Your task to perform on an android device: toggle notification dots Image 0: 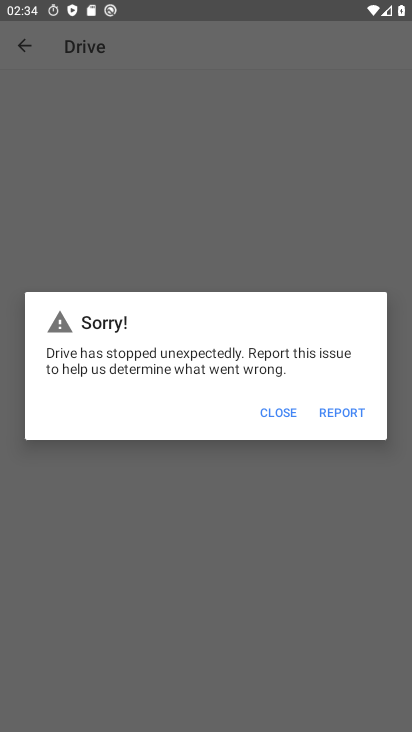
Step 0: press home button
Your task to perform on an android device: toggle notification dots Image 1: 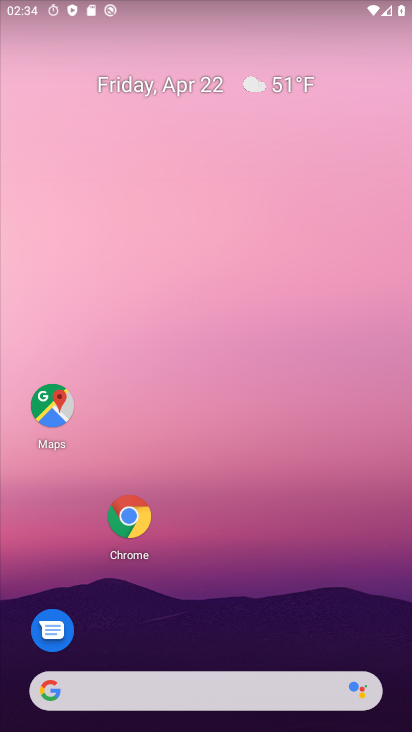
Step 1: drag from (393, 634) to (386, 289)
Your task to perform on an android device: toggle notification dots Image 2: 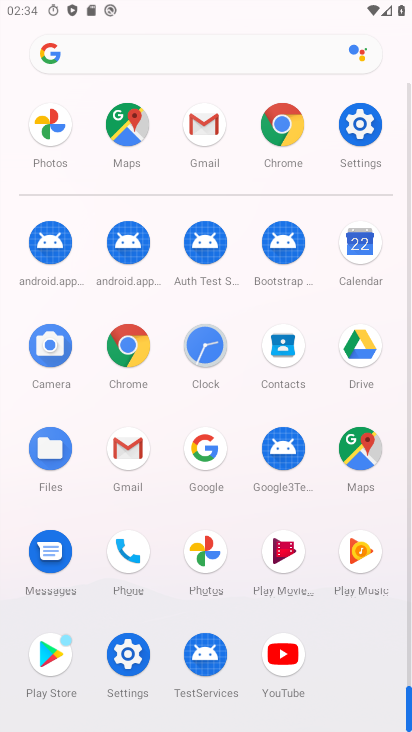
Step 2: click (346, 121)
Your task to perform on an android device: toggle notification dots Image 3: 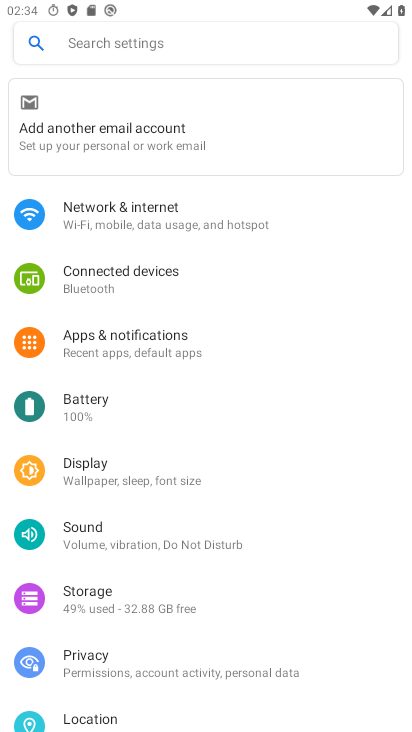
Step 3: click (107, 337)
Your task to perform on an android device: toggle notification dots Image 4: 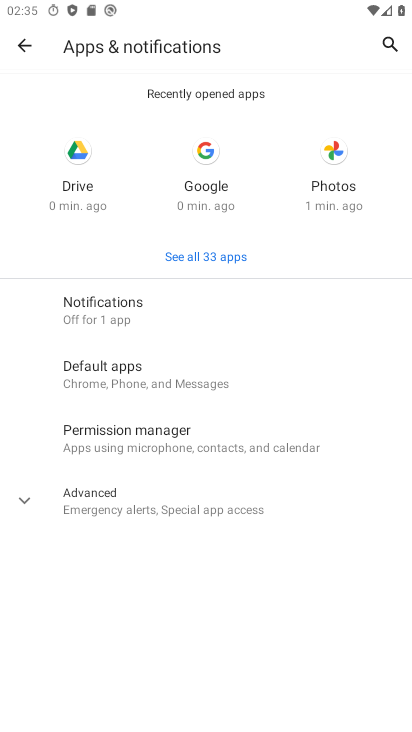
Step 4: click (94, 309)
Your task to perform on an android device: toggle notification dots Image 5: 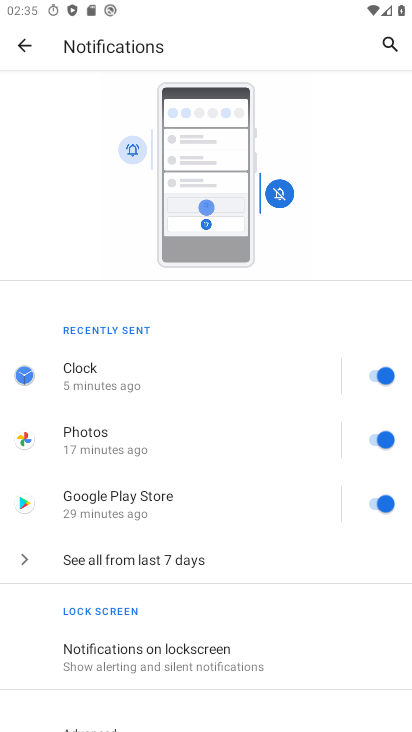
Step 5: click (298, 329)
Your task to perform on an android device: toggle notification dots Image 6: 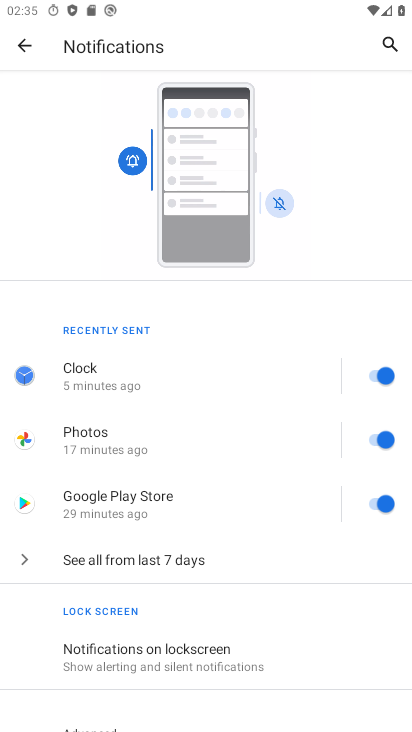
Step 6: drag from (301, 649) to (306, 437)
Your task to perform on an android device: toggle notification dots Image 7: 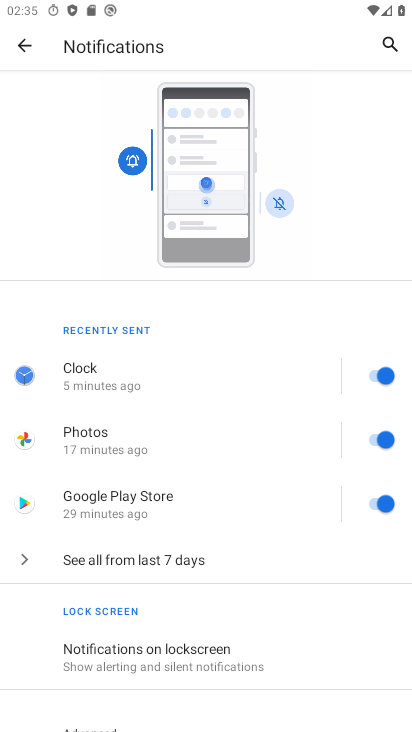
Step 7: drag from (317, 597) to (293, 315)
Your task to perform on an android device: toggle notification dots Image 8: 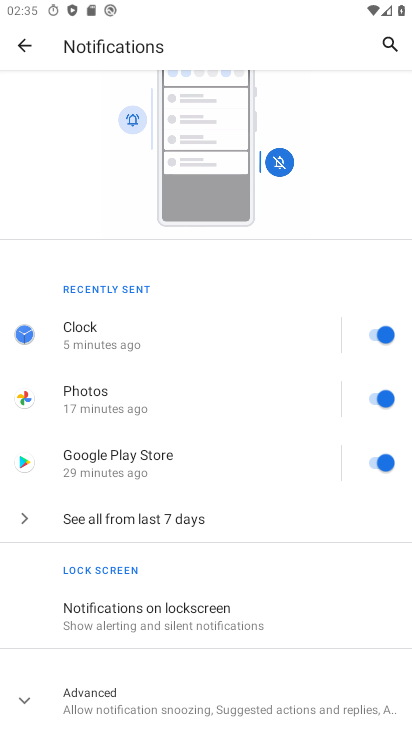
Step 8: click (88, 682)
Your task to perform on an android device: toggle notification dots Image 9: 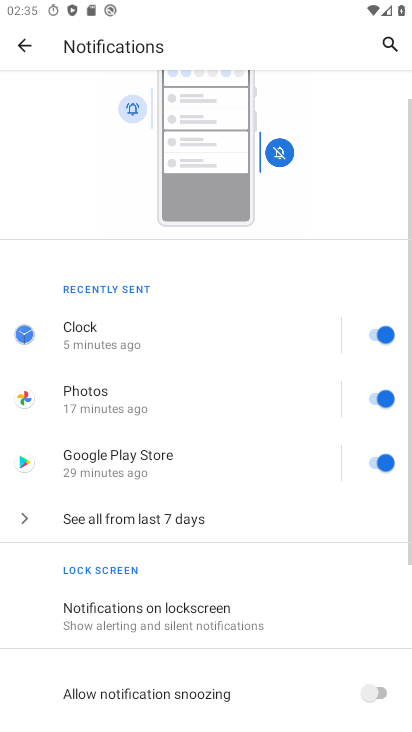
Step 9: drag from (288, 688) to (278, 286)
Your task to perform on an android device: toggle notification dots Image 10: 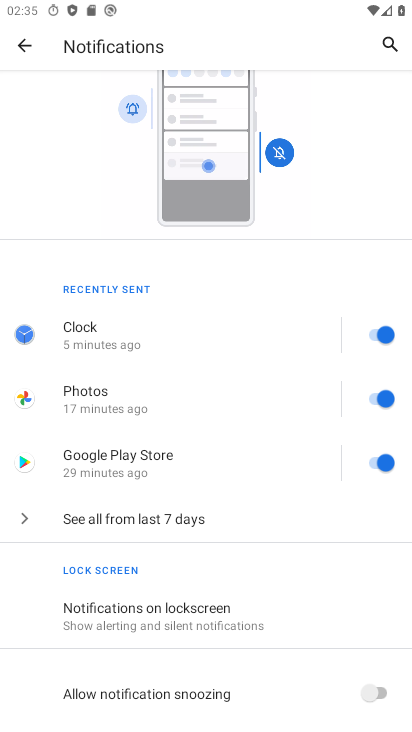
Step 10: drag from (287, 715) to (282, 359)
Your task to perform on an android device: toggle notification dots Image 11: 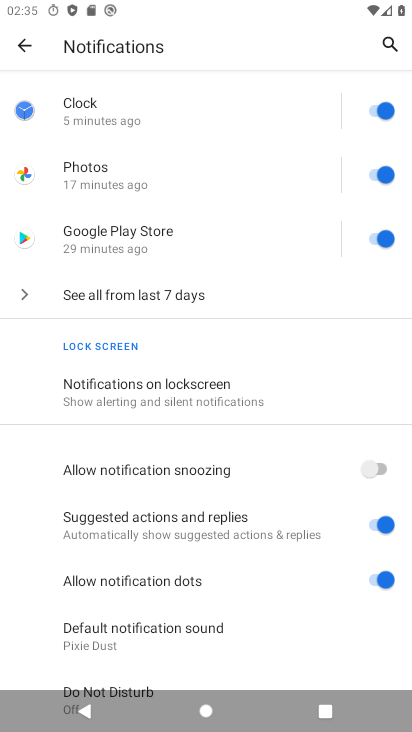
Step 11: drag from (288, 472) to (282, 375)
Your task to perform on an android device: toggle notification dots Image 12: 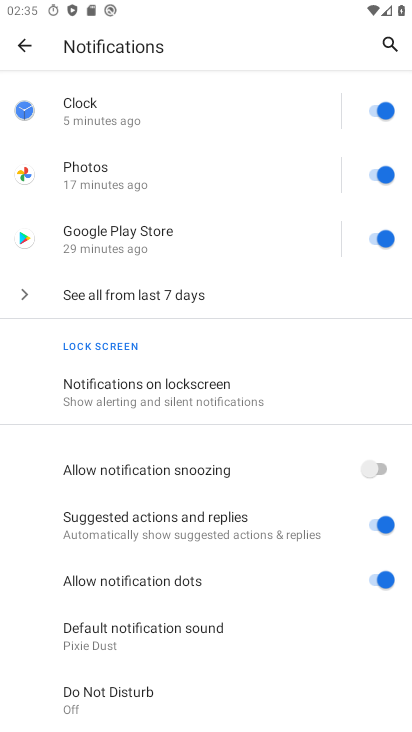
Step 12: click (368, 582)
Your task to perform on an android device: toggle notification dots Image 13: 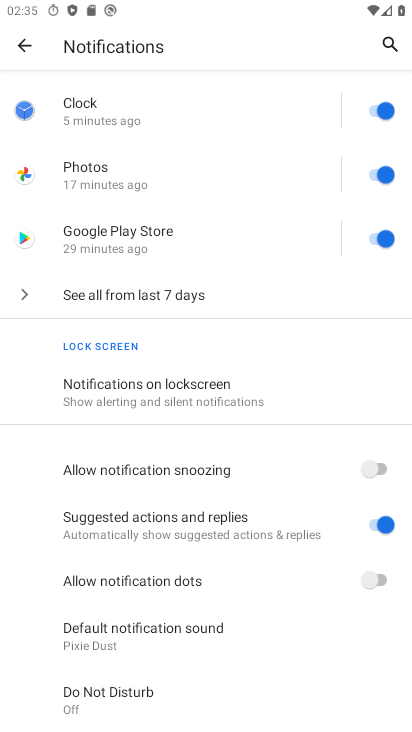
Step 13: task complete